Your task to perform on an android device: Go to Wikipedia Image 0: 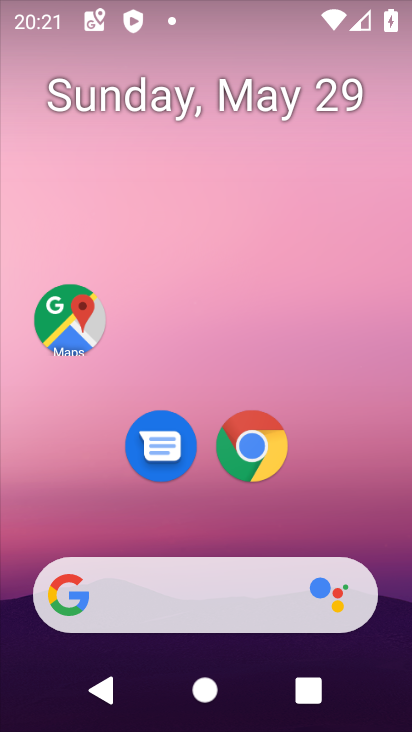
Step 0: click (281, 442)
Your task to perform on an android device: Go to Wikipedia Image 1: 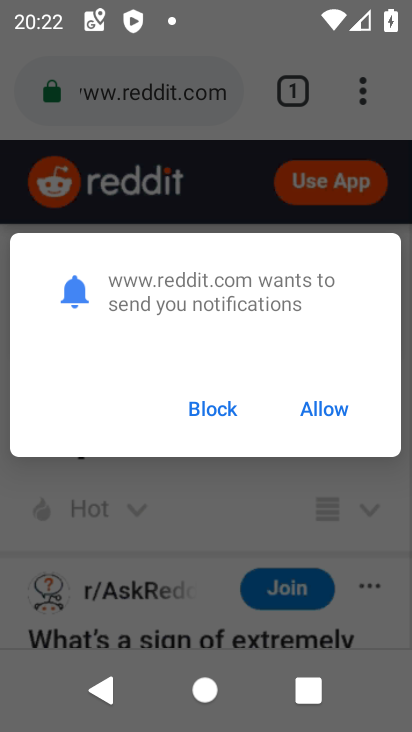
Step 1: click (346, 405)
Your task to perform on an android device: Go to Wikipedia Image 2: 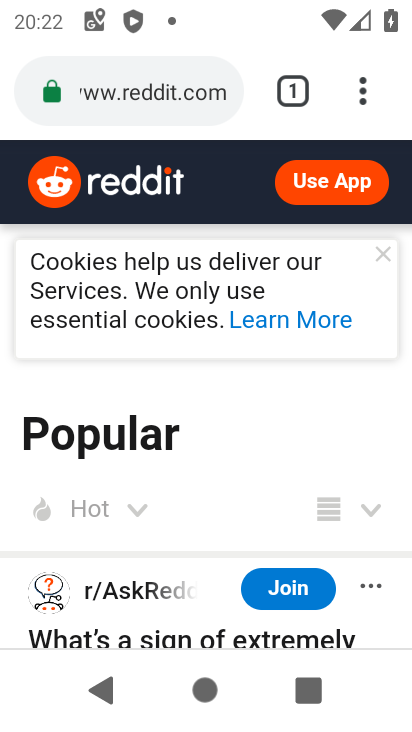
Step 2: click (180, 84)
Your task to perform on an android device: Go to Wikipedia Image 3: 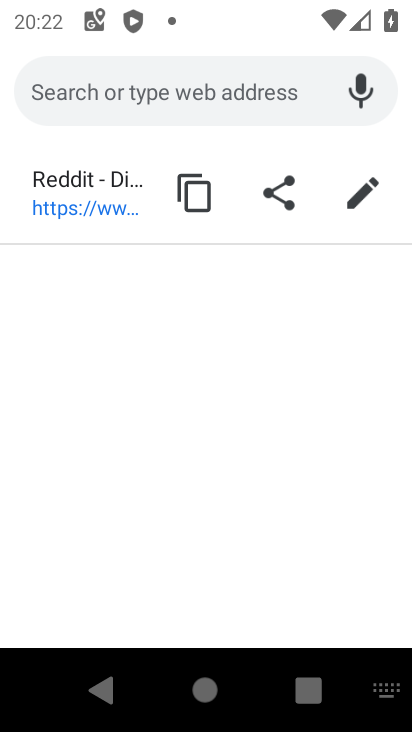
Step 3: type "wikipedia"
Your task to perform on an android device: Go to Wikipedia Image 4: 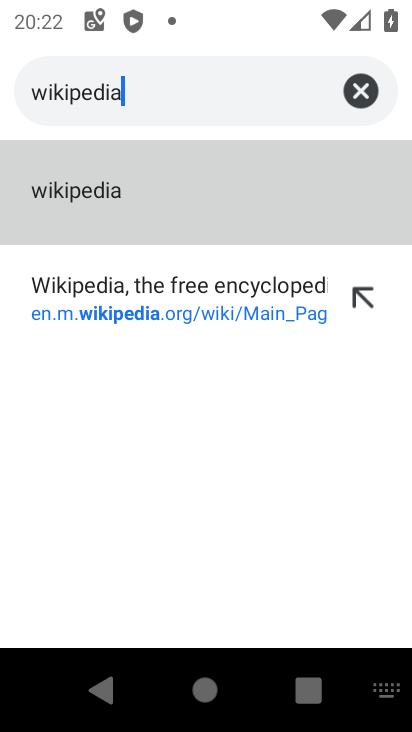
Step 4: click (174, 311)
Your task to perform on an android device: Go to Wikipedia Image 5: 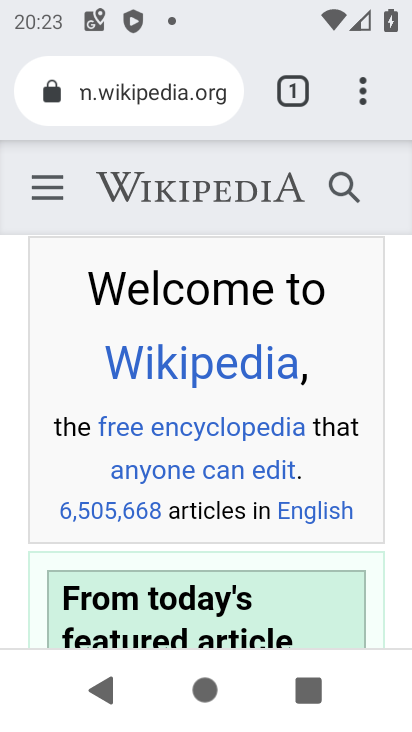
Step 5: task complete